Your task to perform on an android device: Go to Wikipedia Image 0: 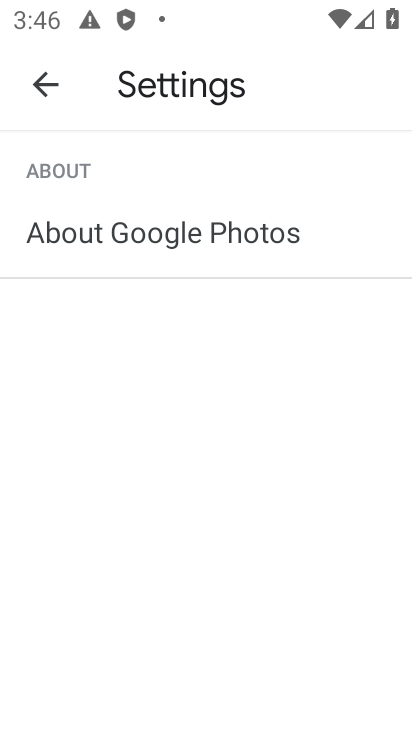
Step 0: press home button
Your task to perform on an android device: Go to Wikipedia Image 1: 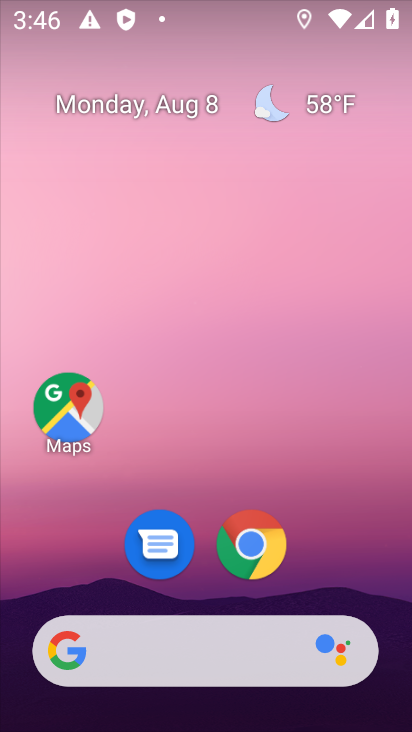
Step 1: drag from (313, 558) to (309, 136)
Your task to perform on an android device: Go to Wikipedia Image 2: 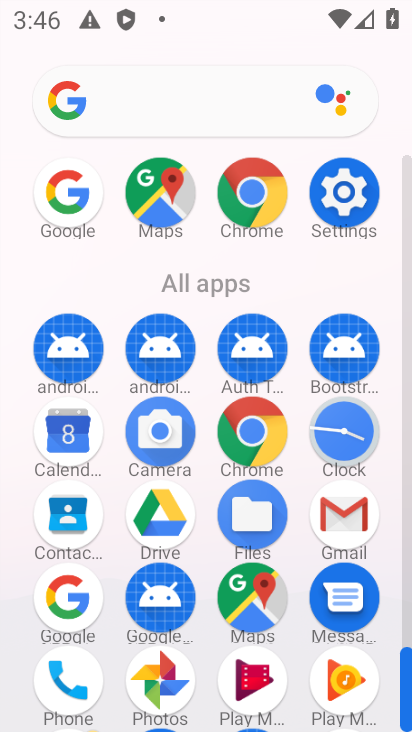
Step 2: click (267, 202)
Your task to perform on an android device: Go to Wikipedia Image 3: 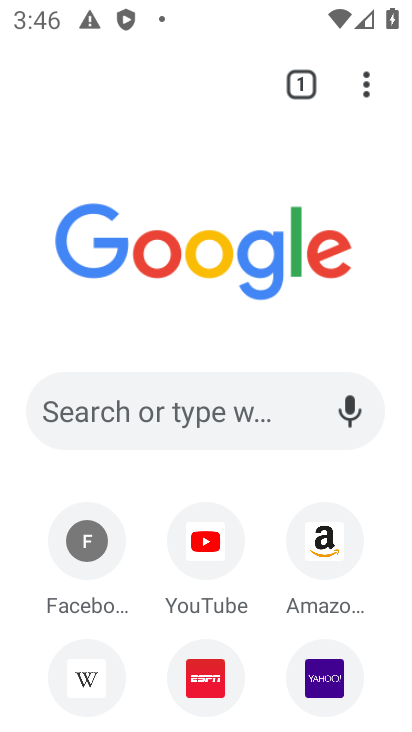
Step 3: click (100, 653)
Your task to perform on an android device: Go to Wikipedia Image 4: 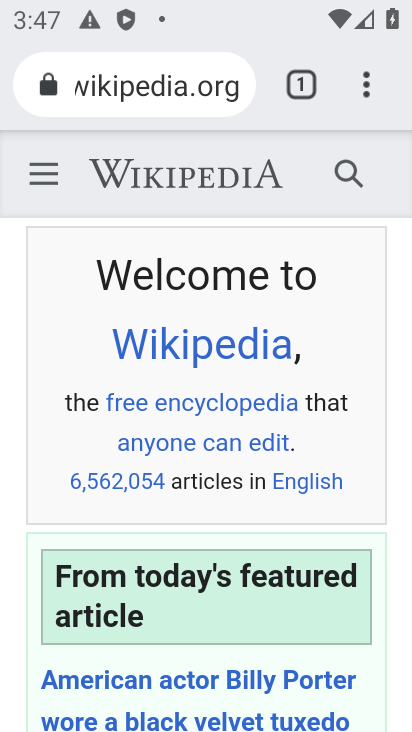
Step 4: task complete